Your task to perform on an android device: Open calendar and show me the third week of next month Image 0: 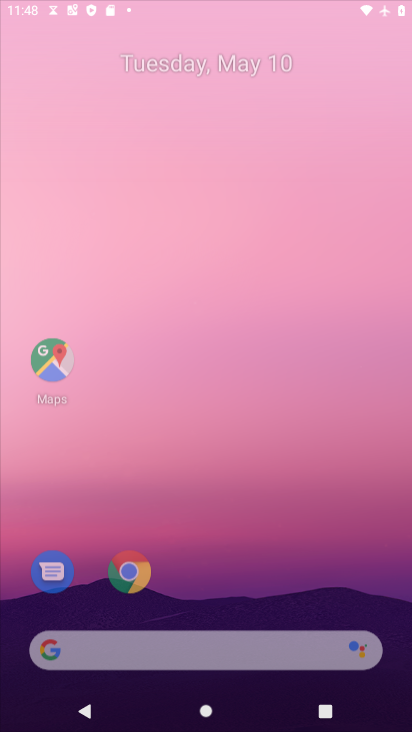
Step 0: click (191, 30)
Your task to perform on an android device: Open calendar and show me the third week of next month Image 1: 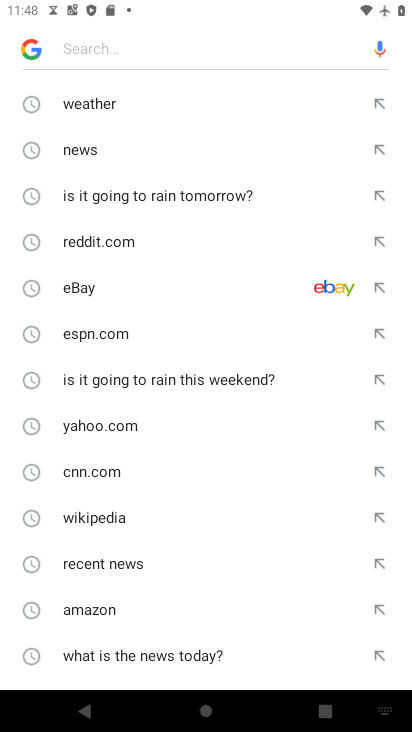
Step 1: press back button
Your task to perform on an android device: Open calendar and show me the third week of next month Image 2: 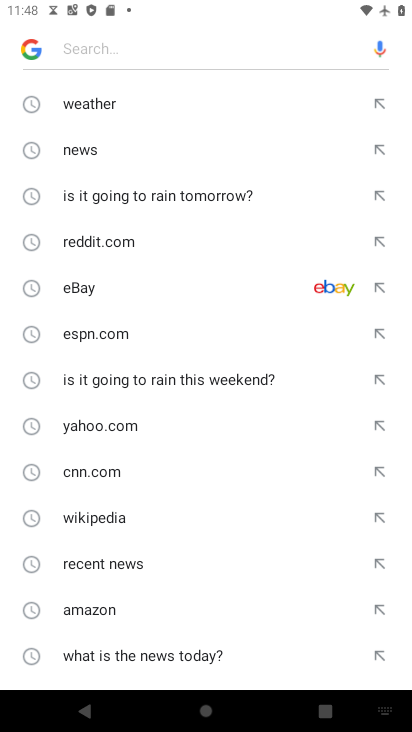
Step 2: press back button
Your task to perform on an android device: Open calendar and show me the third week of next month Image 3: 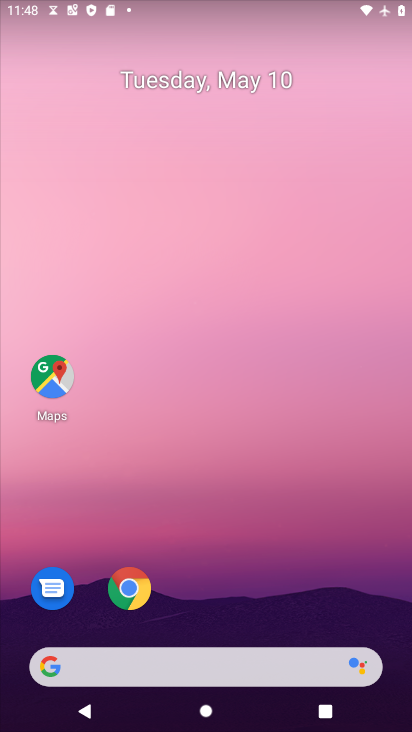
Step 3: drag from (321, 592) to (43, 56)
Your task to perform on an android device: Open calendar and show me the third week of next month Image 4: 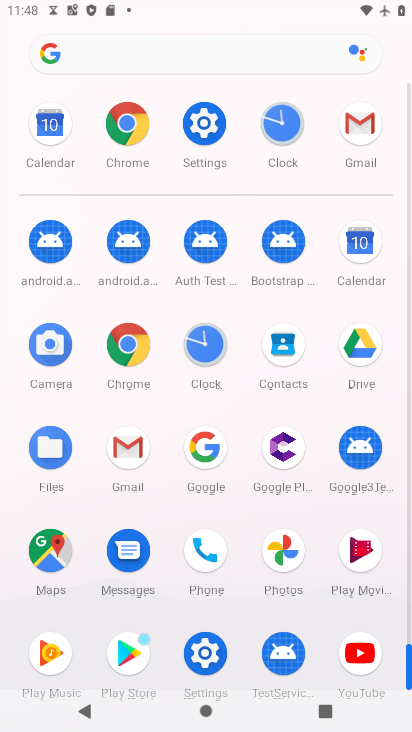
Step 4: click (366, 237)
Your task to perform on an android device: Open calendar and show me the third week of next month Image 5: 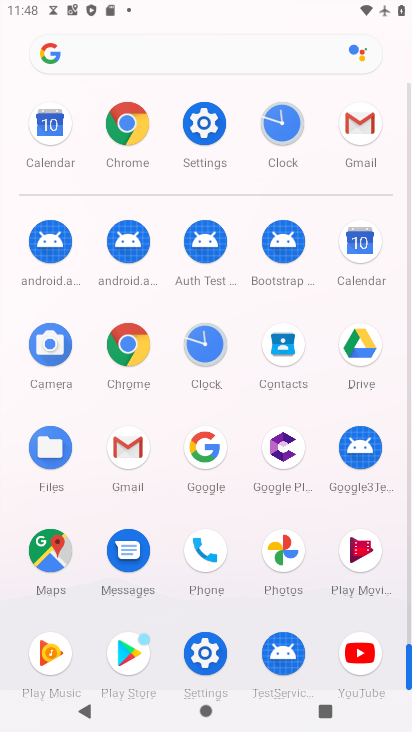
Step 5: click (366, 237)
Your task to perform on an android device: Open calendar and show me the third week of next month Image 6: 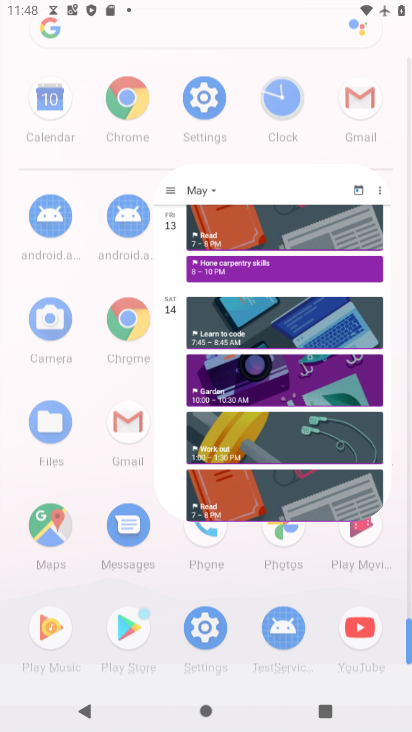
Step 6: click (366, 237)
Your task to perform on an android device: Open calendar and show me the third week of next month Image 7: 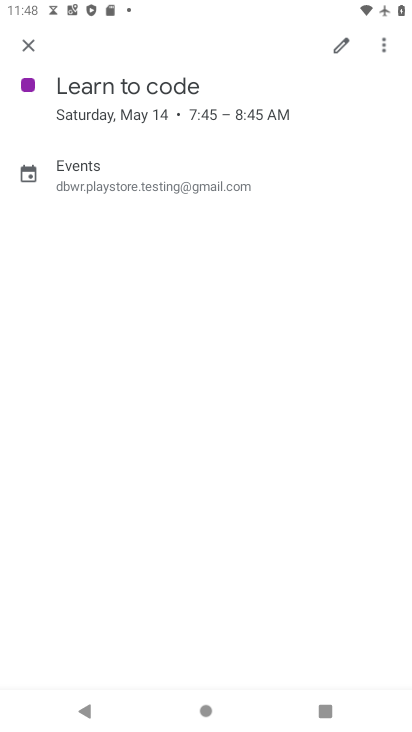
Step 7: click (24, 39)
Your task to perform on an android device: Open calendar and show me the third week of next month Image 8: 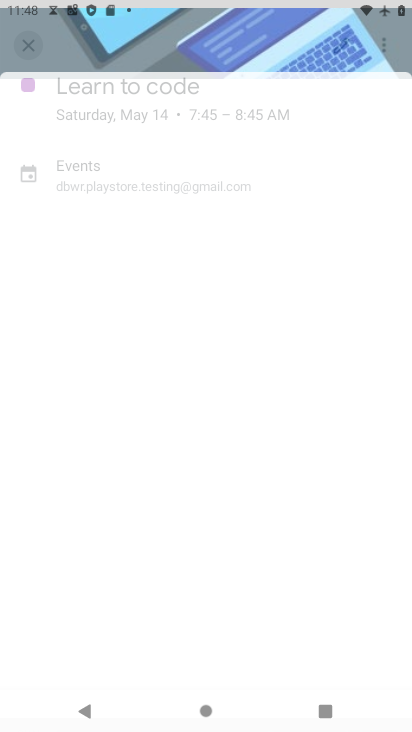
Step 8: click (24, 39)
Your task to perform on an android device: Open calendar and show me the third week of next month Image 9: 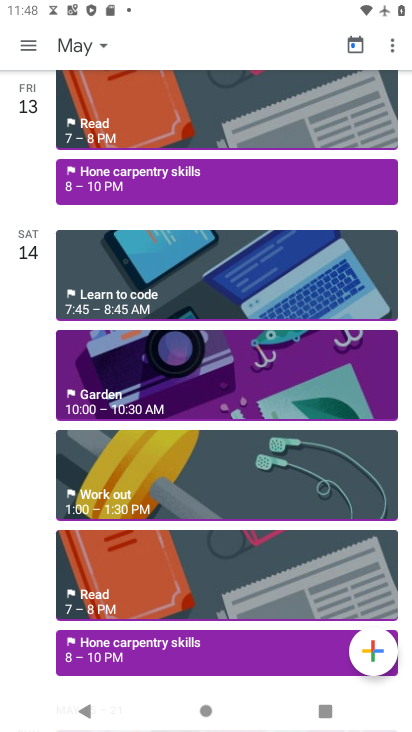
Step 9: click (107, 49)
Your task to perform on an android device: Open calendar and show me the third week of next month Image 10: 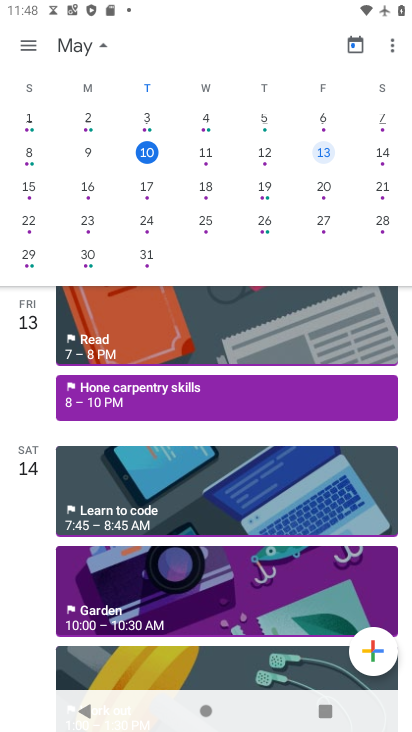
Step 10: drag from (289, 169) to (25, 172)
Your task to perform on an android device: Open calendar and show me the third week of next month Image 11: 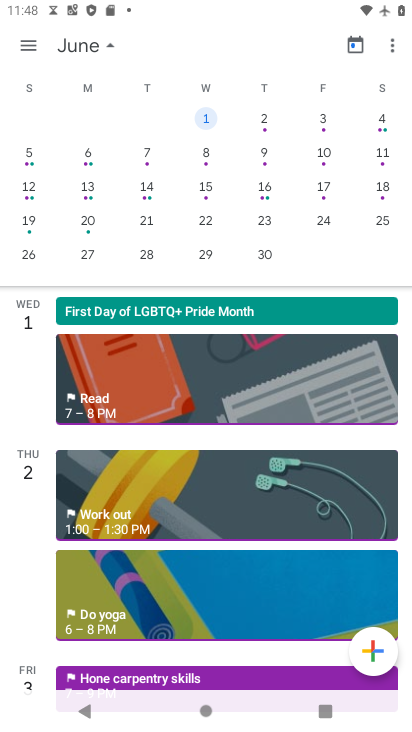
Step 11: drag from (248, 187) to (37, 158)
Your task to perform on an android device: Open calendar and show me the third week of next month Image 12: 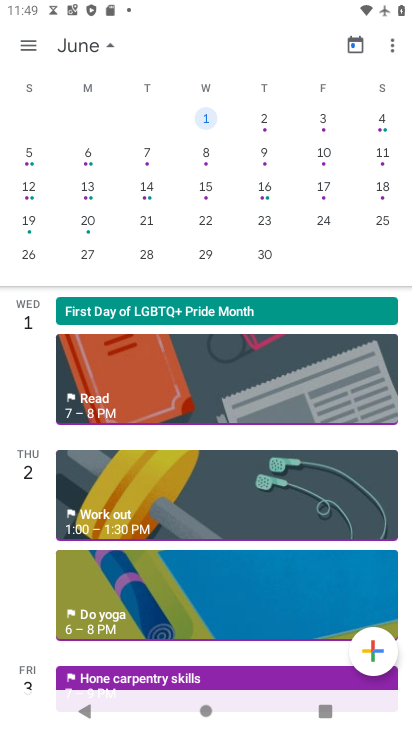
Step 12: click (199, 189)
Your task to perform on an android device: Open calendar and show me the third week of next month Image 13: 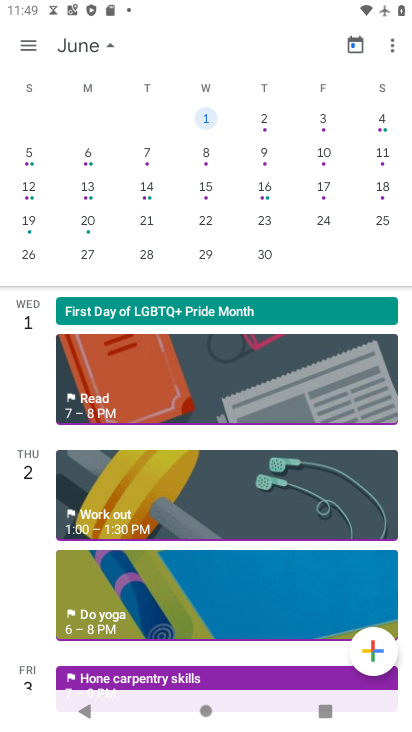
Step 13: click (203, 185)
Your task to perform on an android device: Open calendar and show me the third week of next month Image 14: 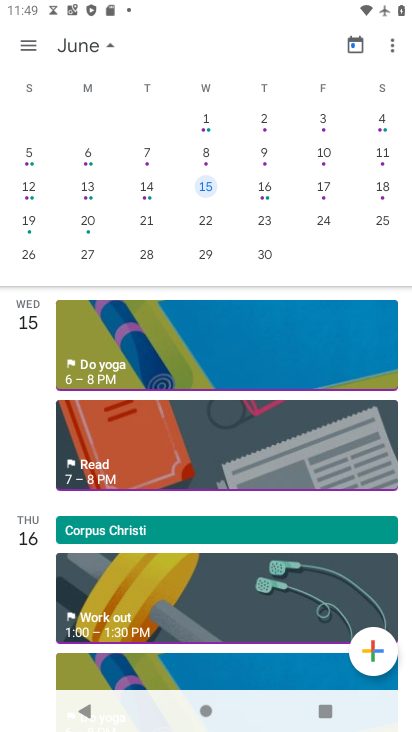
Step 14: click (204, 182)
Your task to perform on an android device: Open calendar and show me the third week of next month Image 15: 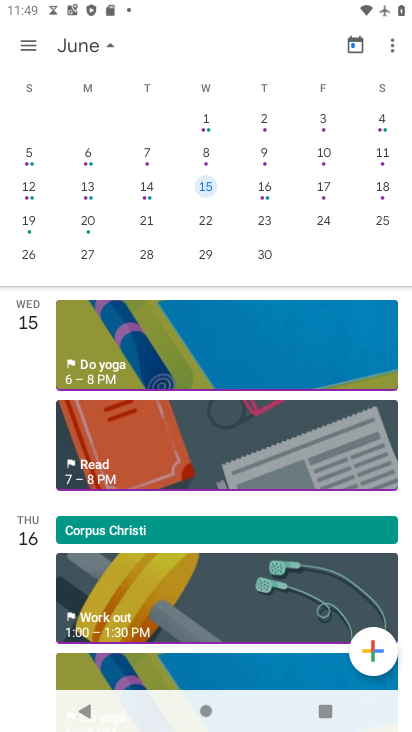
Step 15: task complete